Your task to perform on an android device: Open the calendar and show me this week's events? Image 0: 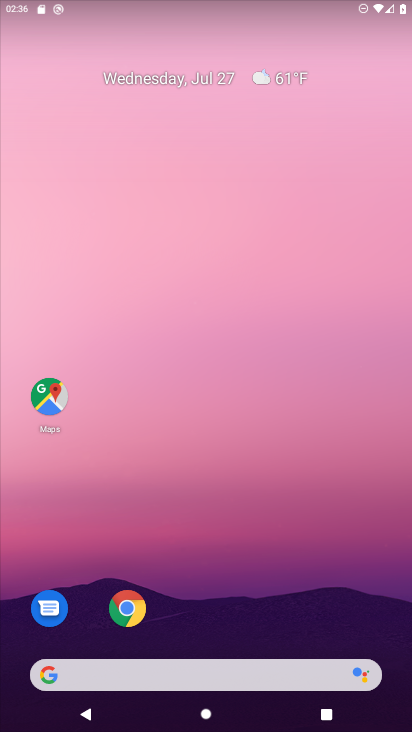
Step 0: drag from (277, 636) to (207, 212)
Your task to perform on an android device: Open the calendar and show me this week's events? Image 1: 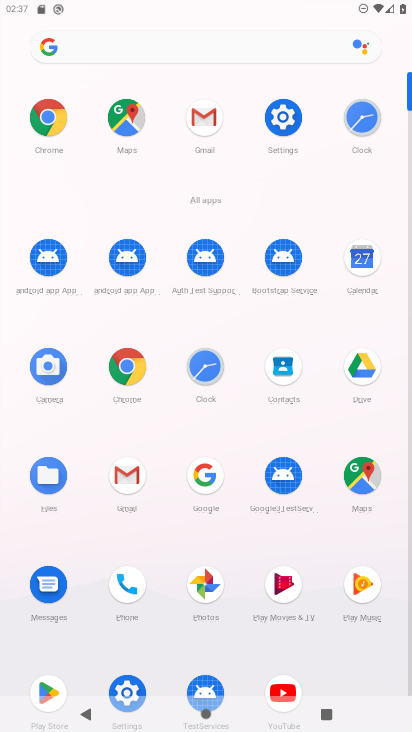
Step 1: click (354, 258)
Your task to perform on an android device: Open the calendar and show me this week's events? Image 2: 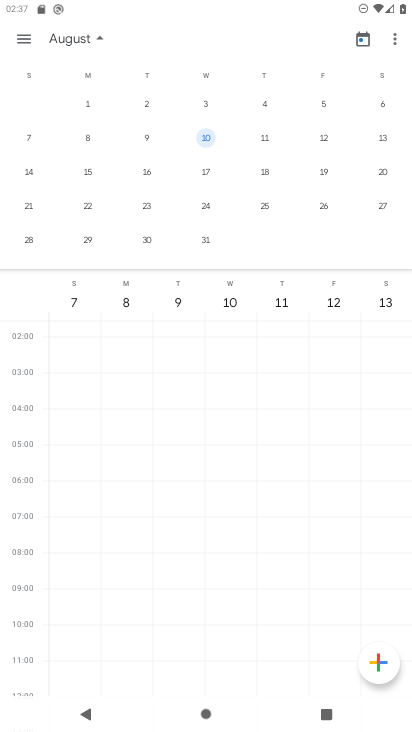
Step 2: click (24, 37)
Your task to perform on an android device: Open the calendar and show me this week's events? Image 3: 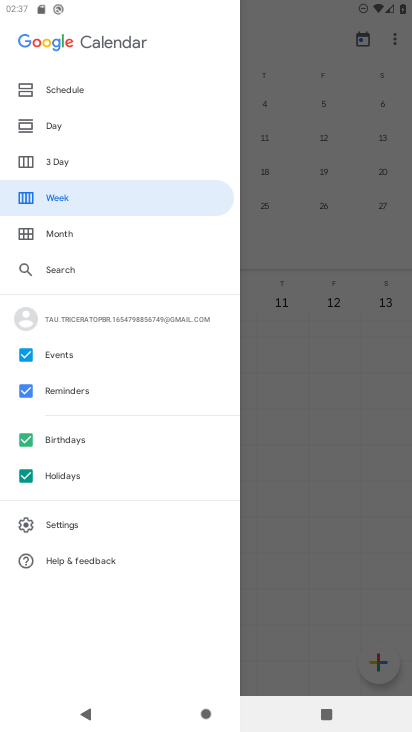
Step 3: click (21, 477)
Your task to perform on an android device: Open the calendar and show me this week's events? Image 4: 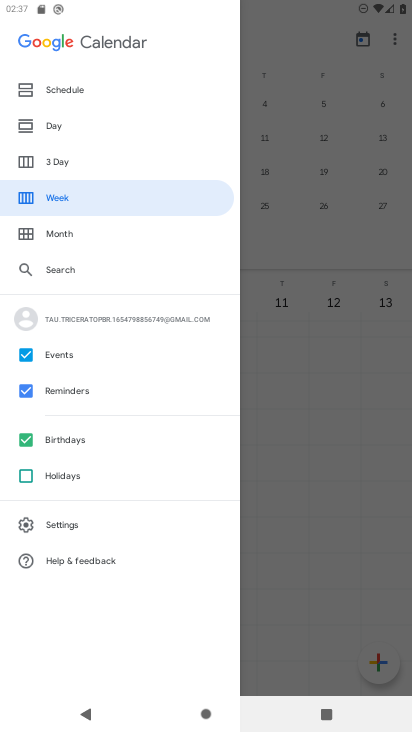
Step 4: click (21, 436)
Your task to perform on an android device: Open the calendar and show me this week's events? Image 5: 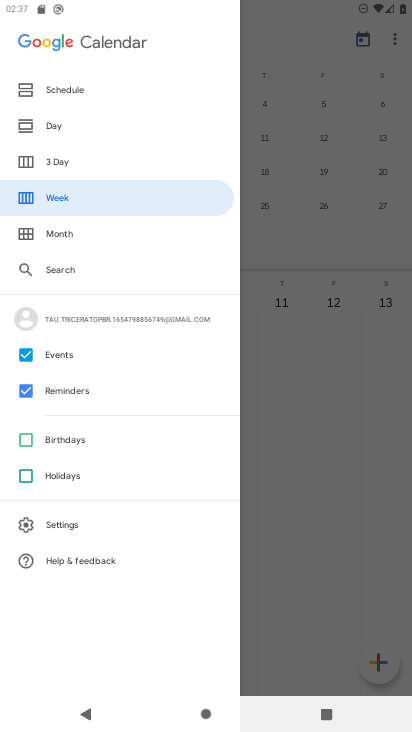
Step 5: click (24, 384)
Your task to perform on an android device: Open the calendar and show me this week's events? Image 6: 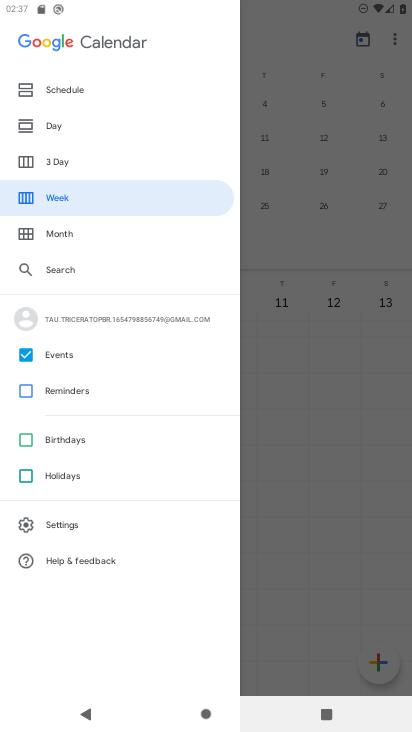
Step 6: click (147, 190)
Your task to perform on an android device: Open the calendar and show me this week's events? Image 7: 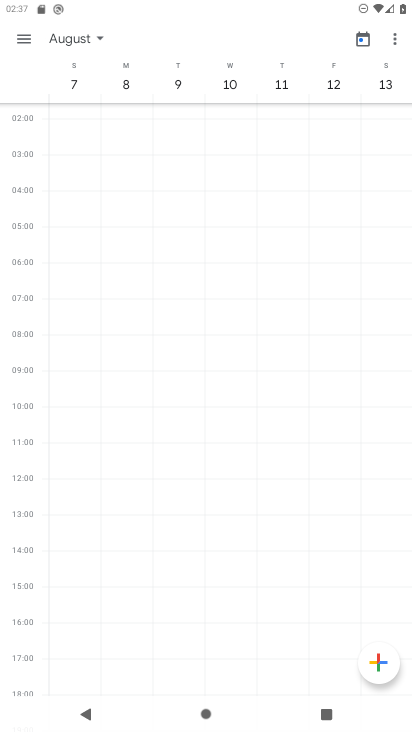
Step 7: click (98, 39)
Your task to perform on an android device: Open the calendar and show me this week's events? Image 8: 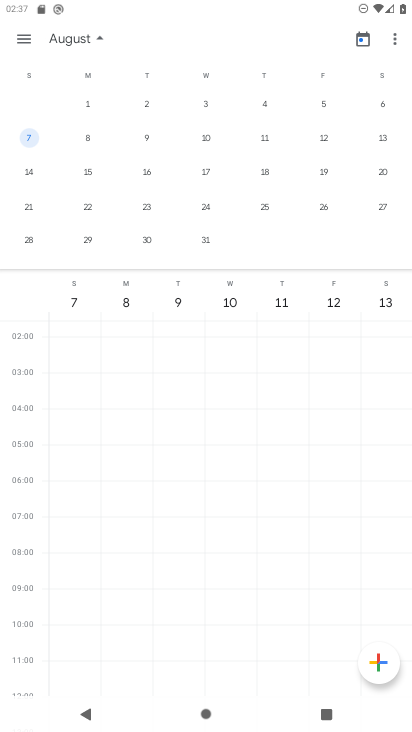
Step 8: drag from (54, 115) to (404, 180)
Your task to perform on an android device: Open the calendar and show me this week's events? Image 9: 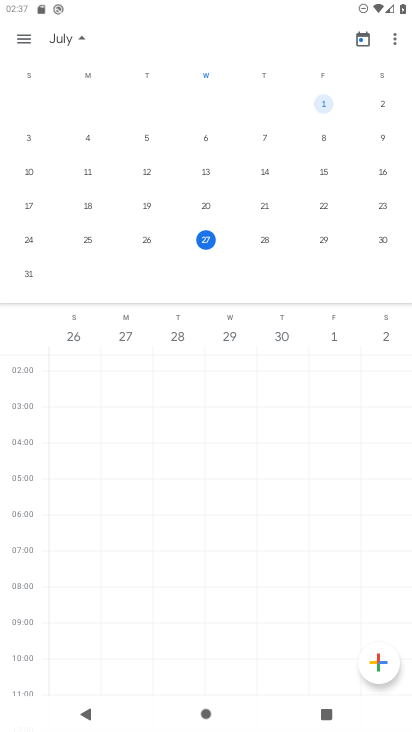
Step 9: click (267, 242)
Your task to perform on an android device: Open the calendar and show me this week's events? Image 10: 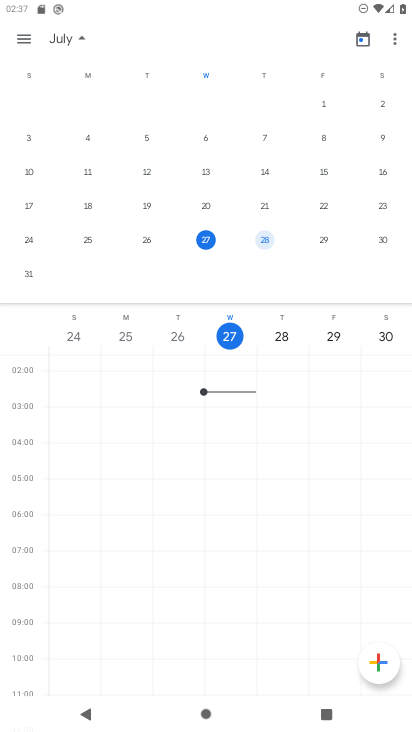
Step 10: task complete